Your task to perform on an android device: set the timer Image 0: 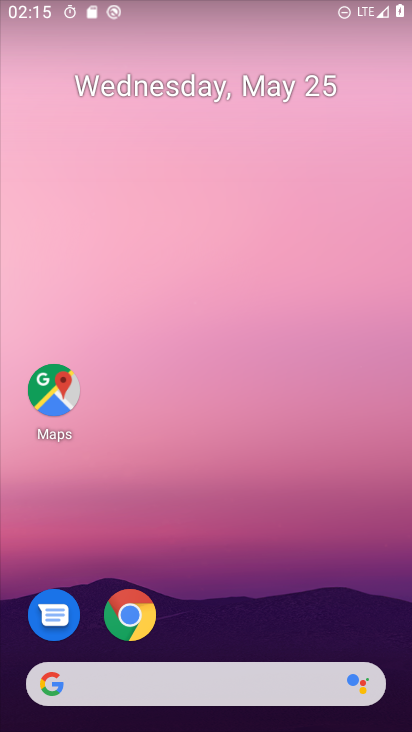
Step 0: drag from (267, 693) to (158, 145)
Your task to perform on an android device: set the timer Image 1: 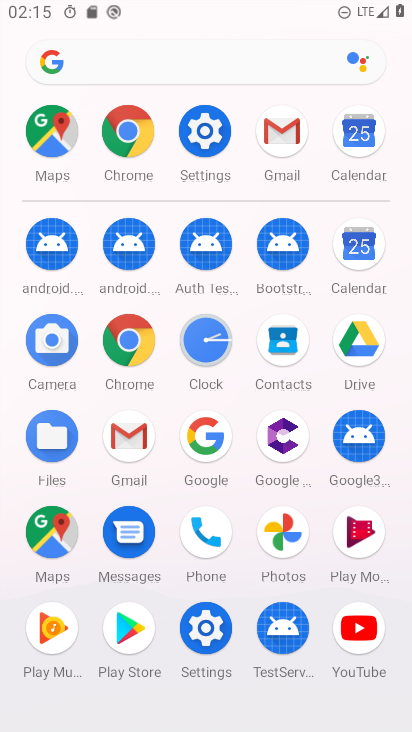
Step 1: click (230, 335)
Your task to perform on an android device: set the timer Image 2: 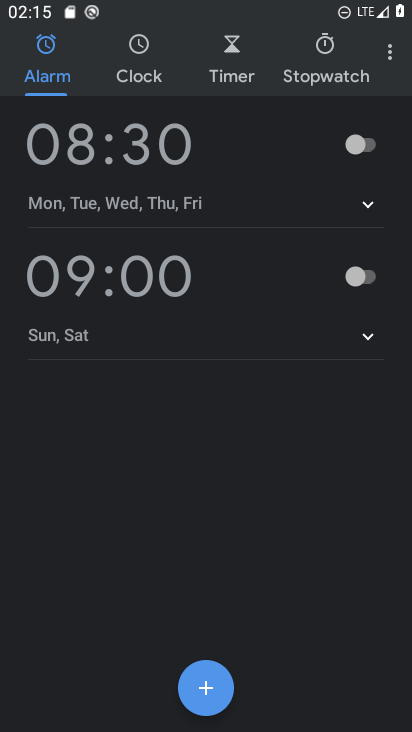
Step 2: click (382, 57)
Your task to perform on an android device: set the timer Image 3: 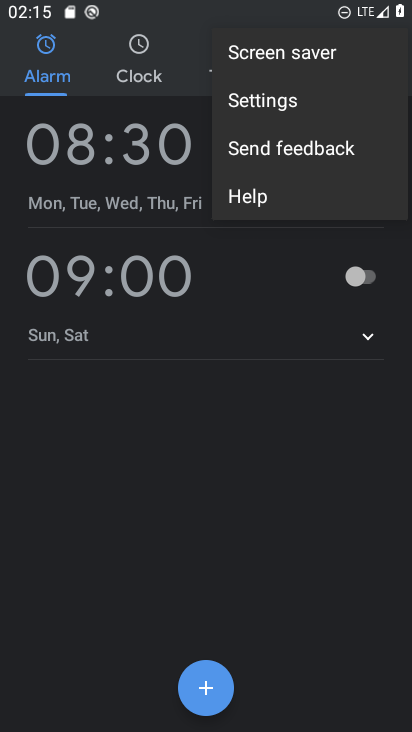
Step 3: click (282, 98)
Your task to perform on an android device: set the timer Image 4: 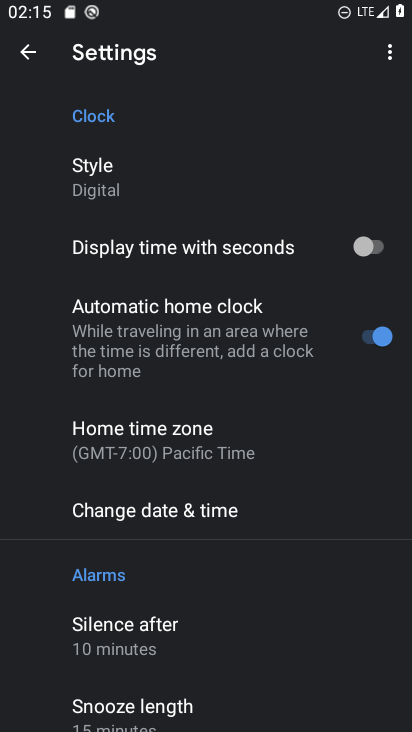
Step 4: click (20, 49)
Your task to perform on an android device: set the timer Image 5: 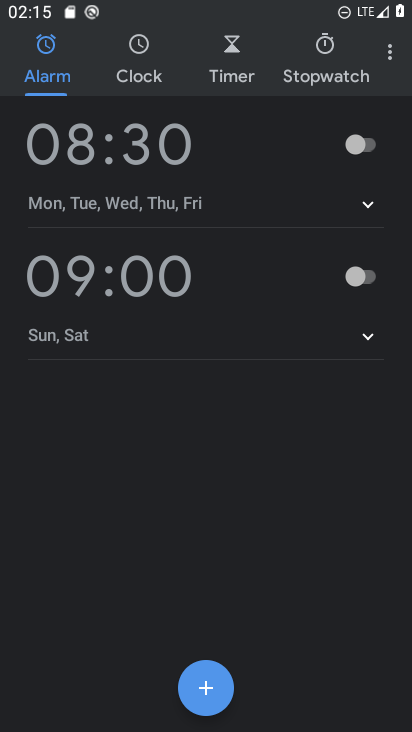
Step 5: click (220, 58)
Your task to perform on an android device: set the timer Image 6: 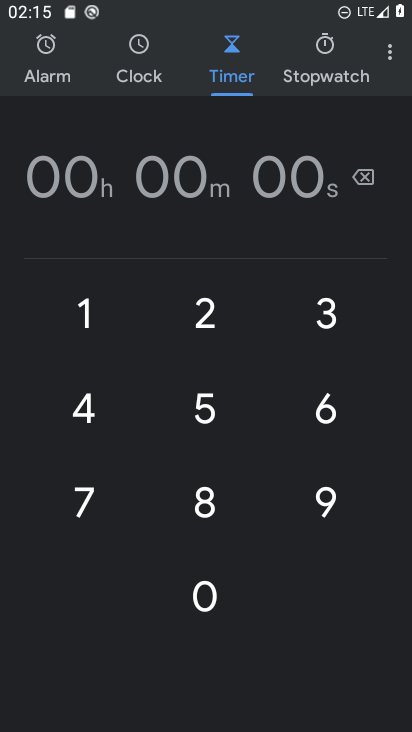
Step 6: click (249, 388)
Your task to perform on an android device: set the timer Image 7: 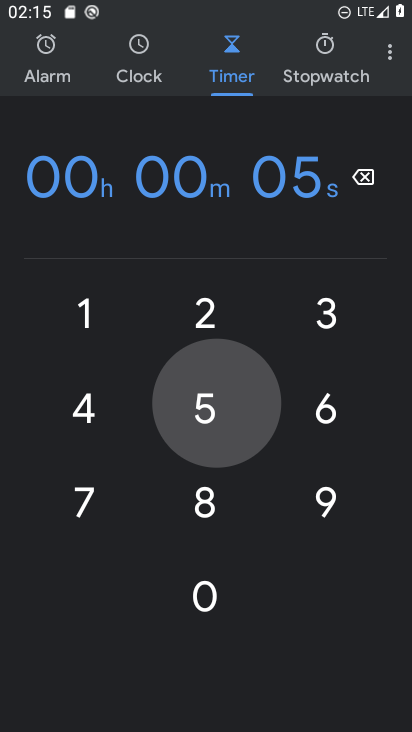
Step 7: click (85, 367)
Your task to perform on an android device: set the timer Image 8: 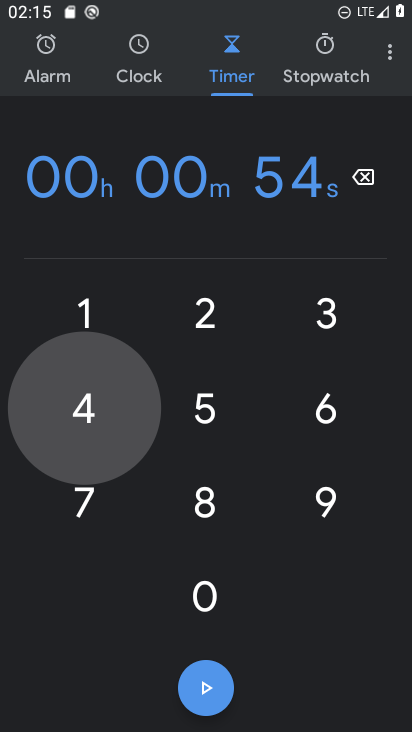
Step 8: click (234, 544)
Your task to perform on an android device: set the timer Image 9: 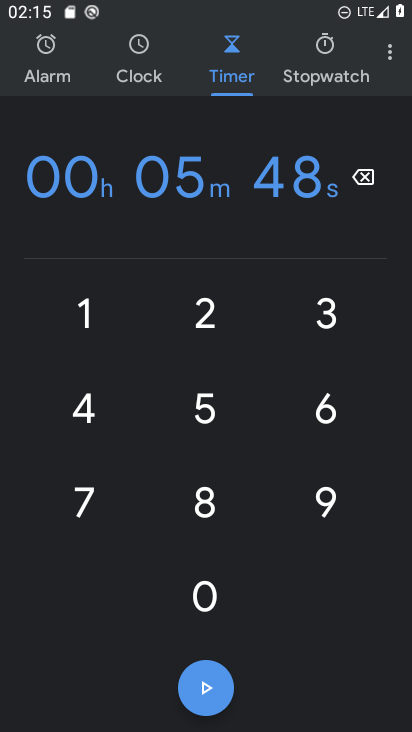
Step 9: click (189, 345)
Your task to perform on an android device: set the timer Image 10: 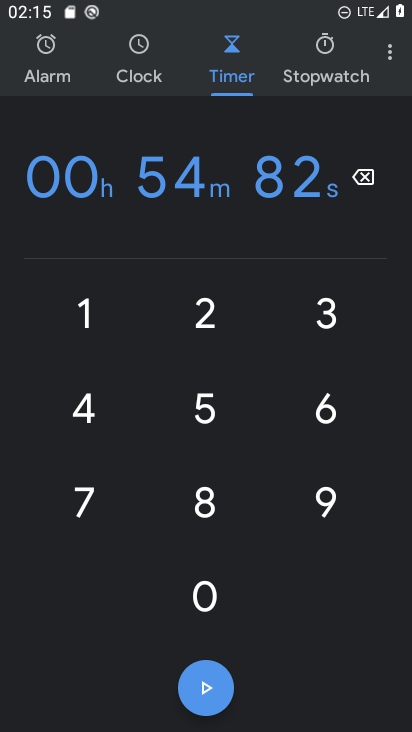
Step 10: click (230, 680)
Your task to perform on an android device: set the timer Image 11: 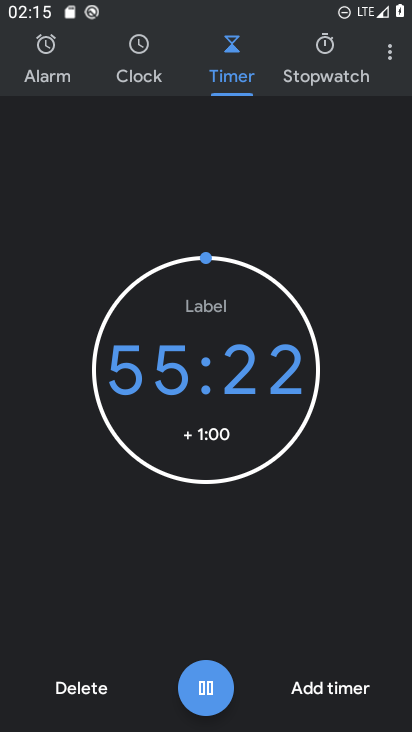
Step 11: task complete